Your task to perform on an android device: set an alarm Image 0: 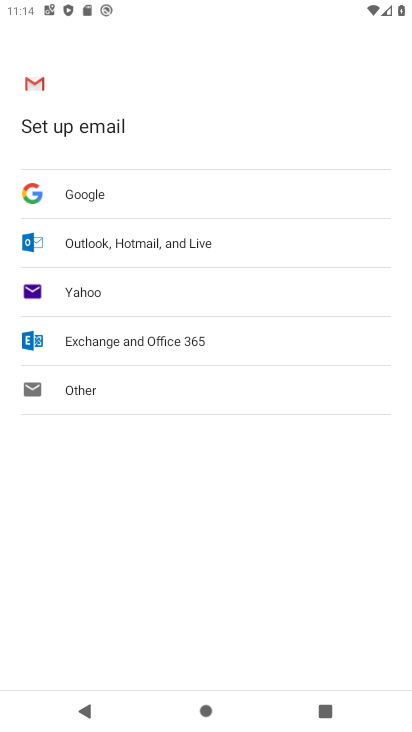
Step 0: press home button
Your task to perform on an android device: set an alarm Image 1: 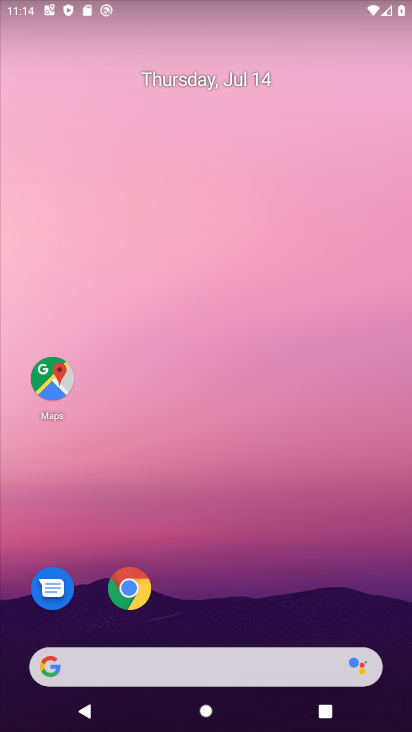
Step 1: drag from (387, 626) to (301, 154)
Your task to perform on an android device: set an alarm Image 2: 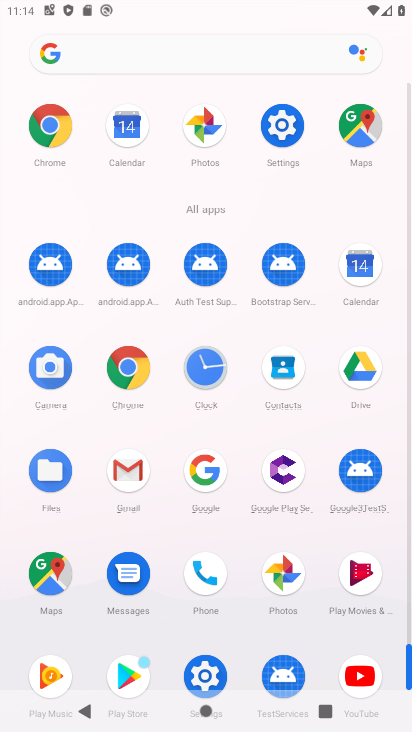
Step 2: click (200, 367)
Your task to perform on an android device: set an alarm Image 3: 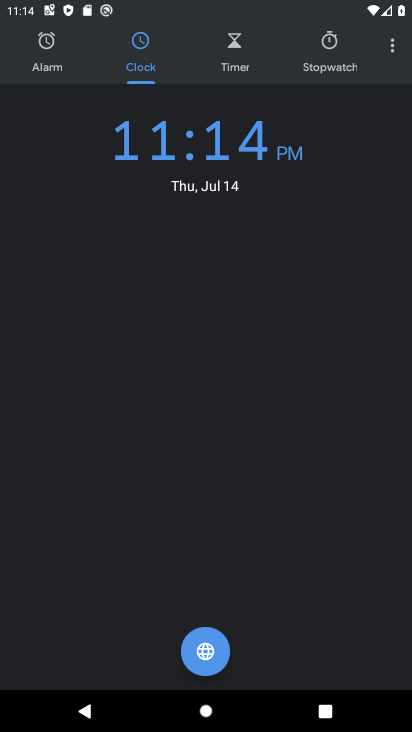
Step 3: click (39, 42)
Your task to perform on an android device: set an alarm Image 4: 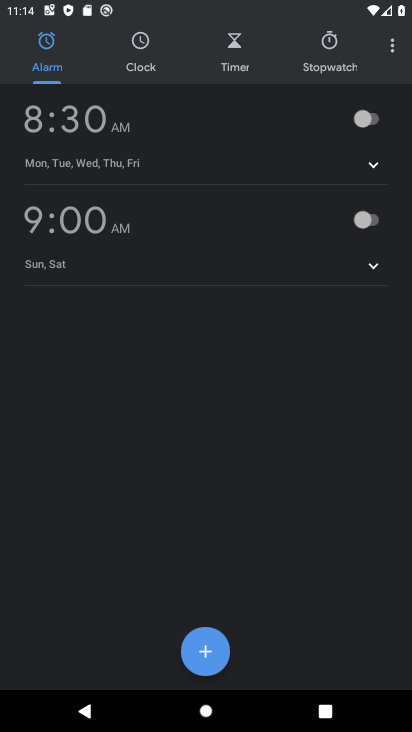
Step 4: click (90, 124)
Your task to perform on an android device: set an alarm Image 5: 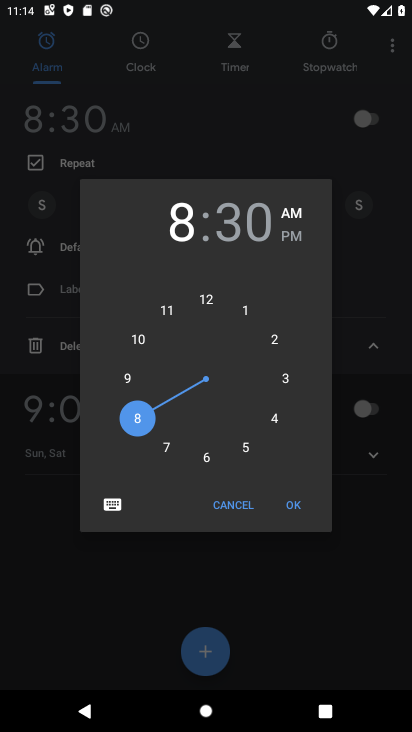
Step 5: click (204, 460)
Your task to perform on an android device: set an alarm Image 6: 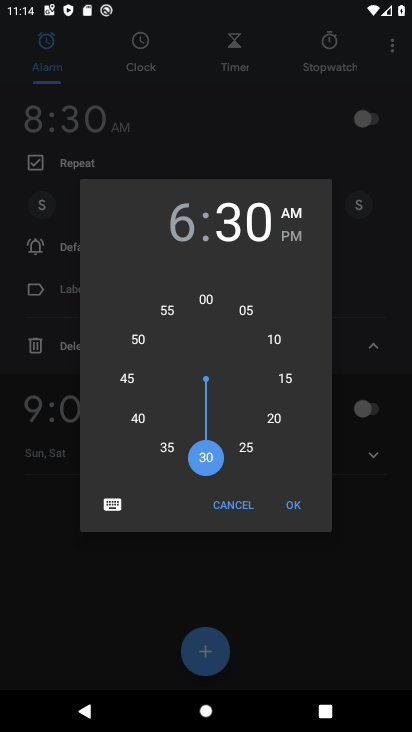
Step 6: click (211, 292)
Your task to perform on an android device: set an alarm Image 7: 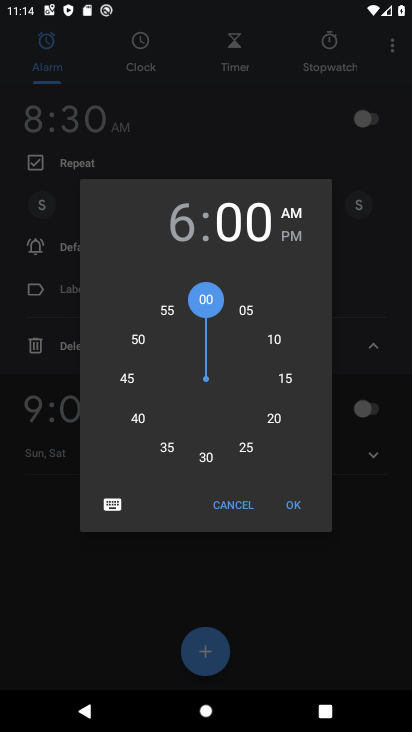
Step 7: click (285, 506)
Your task to perform on an android device: set an alarm Image 8: 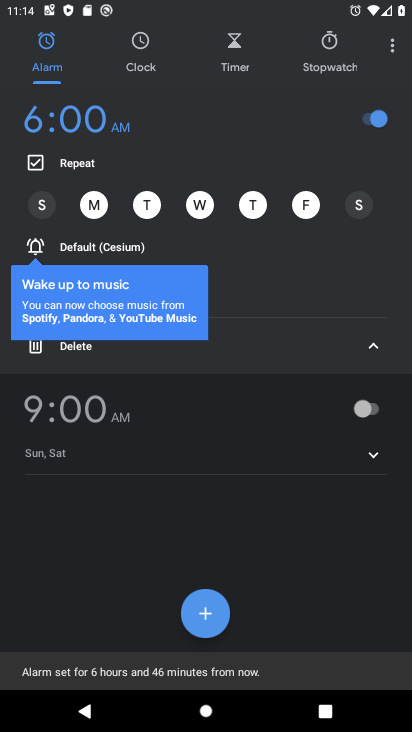
Step 8: click (361, 206)
Your task to perform on an android device: set an alarm Image 9: 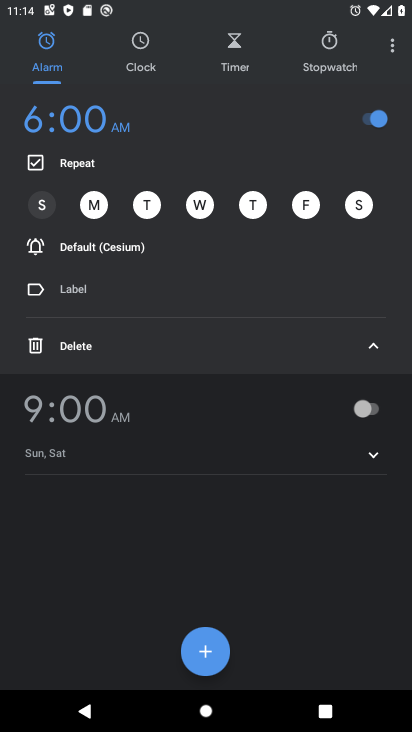
Step 9: click (369, 344)
Your task to perform on an android device: set an alarm Image 10: 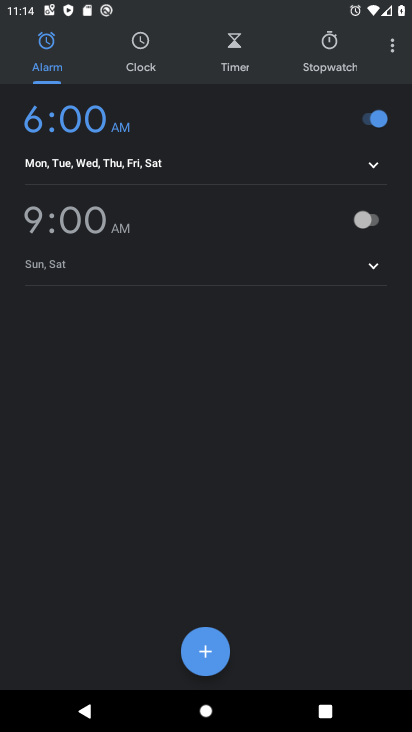
Step 10: task complete